Your task to perform on an android device: add a contact Image 0: 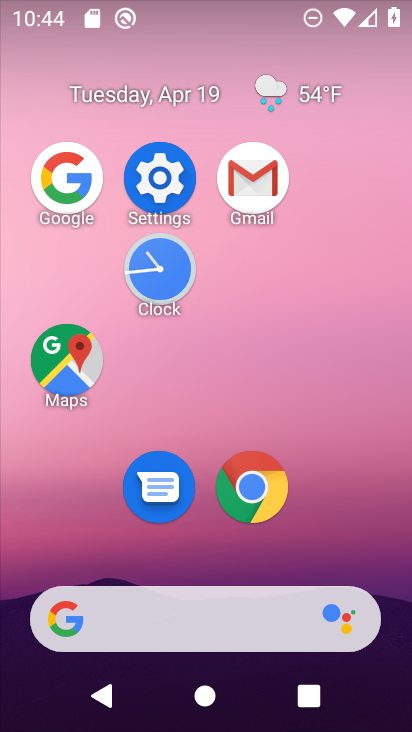
Step 0: drag from (237, 486) to (282, 80)
Your task to perform on an android device: add a contact Image 1: 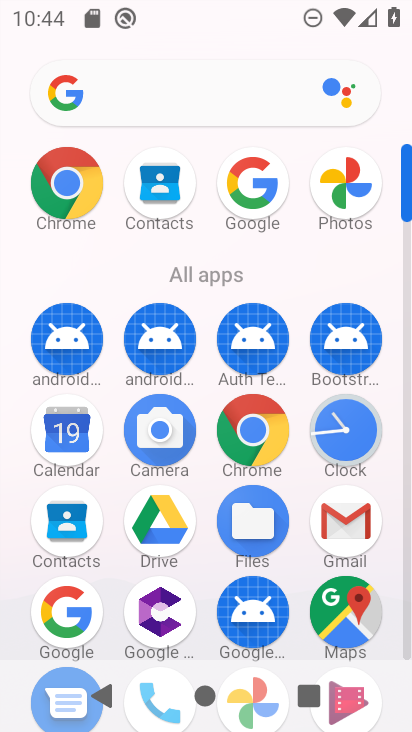
Step 1: drag from (233, 518) to (271, 131)
Your task to perform on an android device: add a contact Image 2: 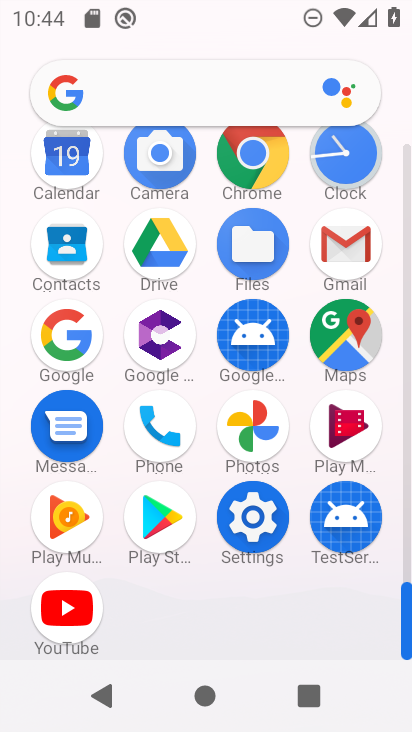
Step 2: click (71, 258)
Your task to perform on an android device: add a contact Image 3: 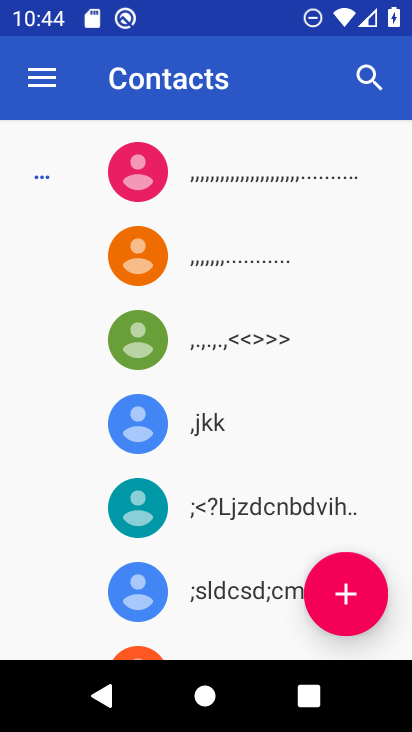
Step 3: click (351, 617)
Your task to perform on an android device: add a contact Image 4: 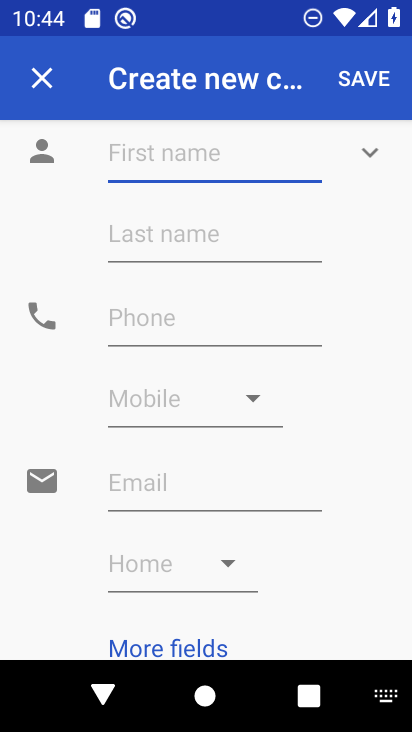
Step 4: type "aa"
Your task to perform on an android device: add a contact Image 5: 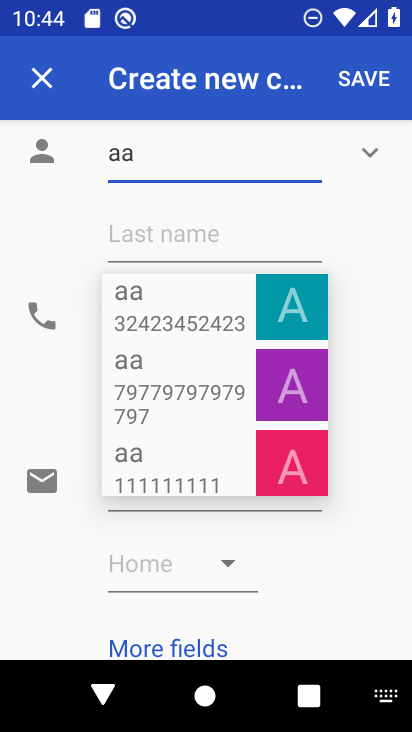
Step 5: click (256, 317)
Your task to perform on an android device: add a contact Image 6: 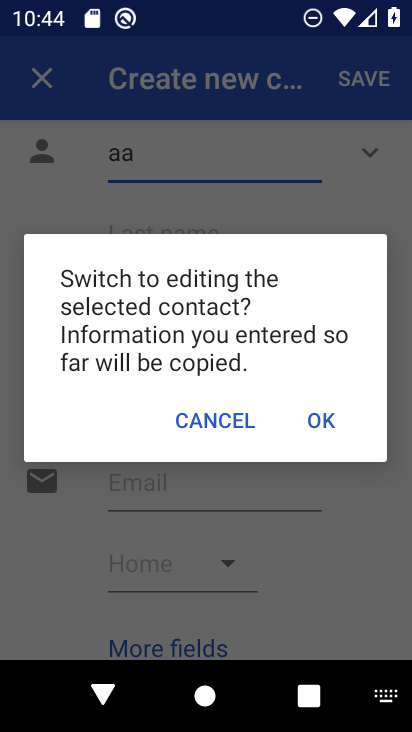
Step 6: click (215, 406)
Your task to perform on an android device: add a contact Image 7: 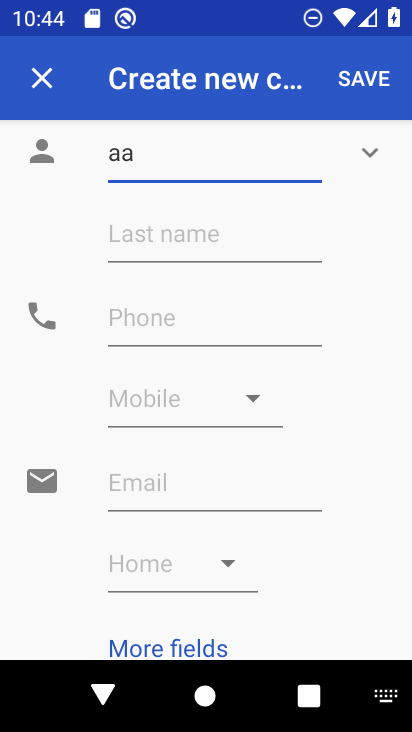
Step 7: click (223, 228)
Your task to perform on an android device: add a contact Image 8: 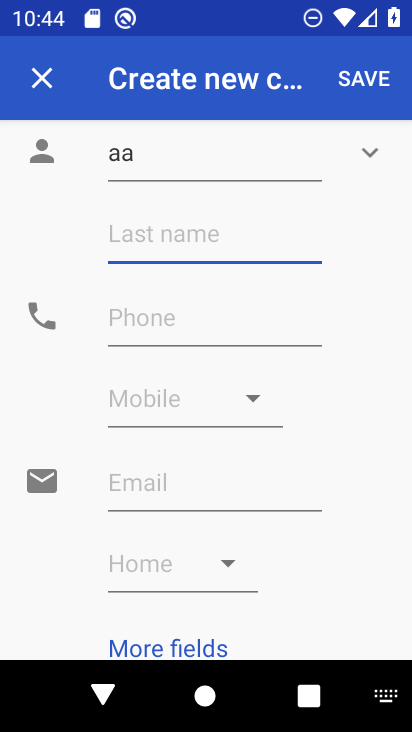
Step 8: type "bb"
Your task to perform on an android device: add a contact Image 9: 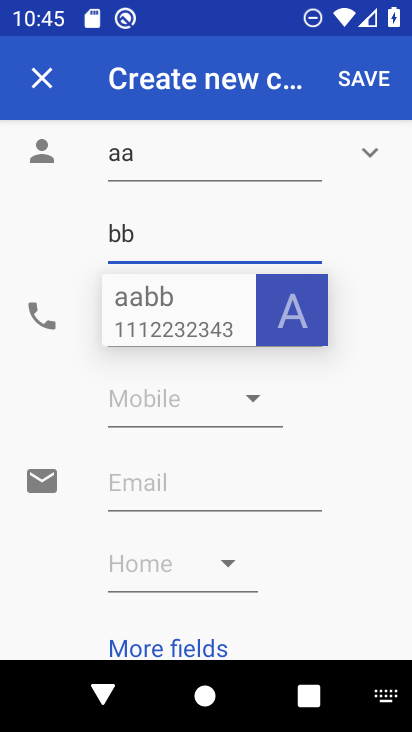
Step 9: click (167, 399)
Your task to perform on an android device: add a contact Image 10: 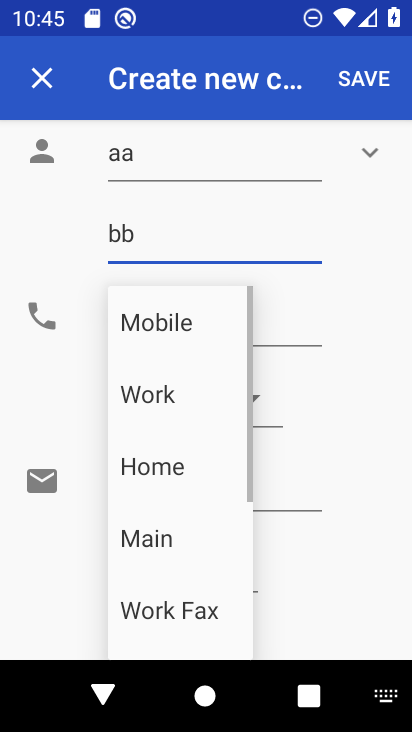
Step 10: click (289, 302)
Your task to perform on an android device: add a contact Image 11: 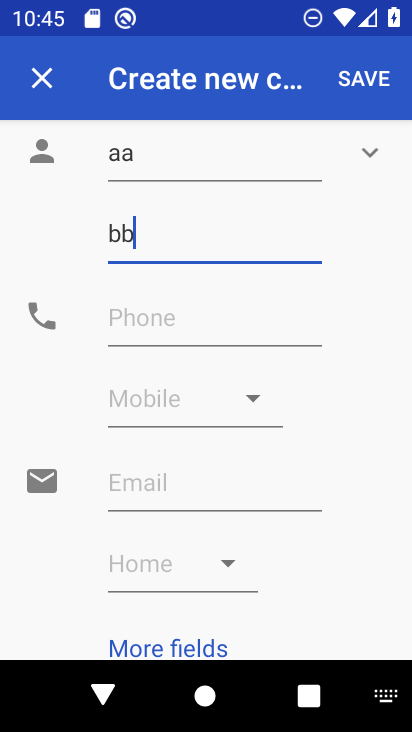
Step 11: click (265, 319)
Your task to perform on an android device: add a contact Image 12: 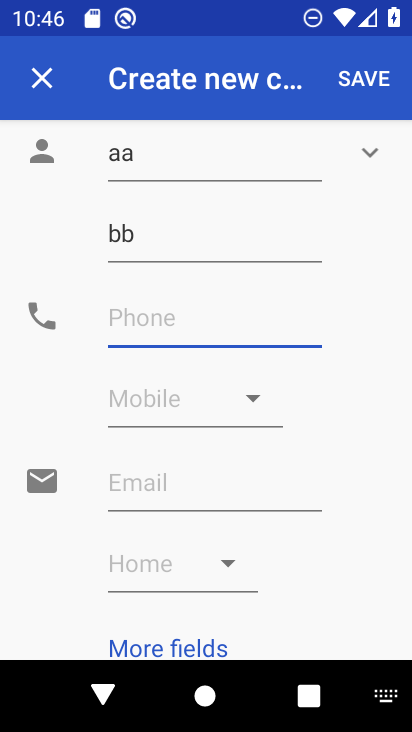
Step 12: type "2222113344"
Your task to perform on an android device: add a contact Image 13: 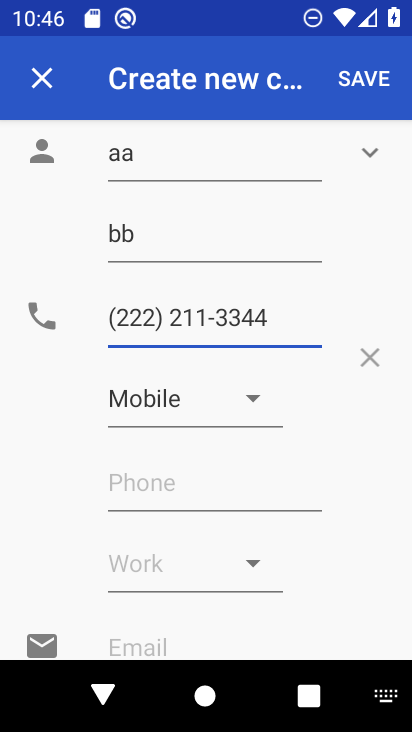
Step 13: click (355, 80)
Your task to perform on an android device: add a contact Image 14: 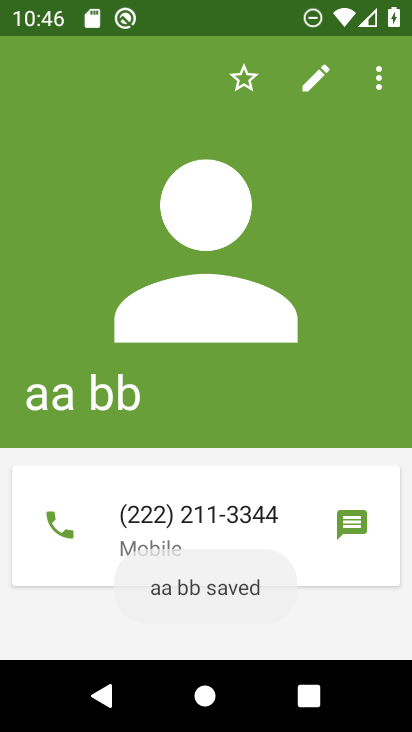
Step 14: task complete